Your task to perform on an android device: Go to Google maps Image 0: 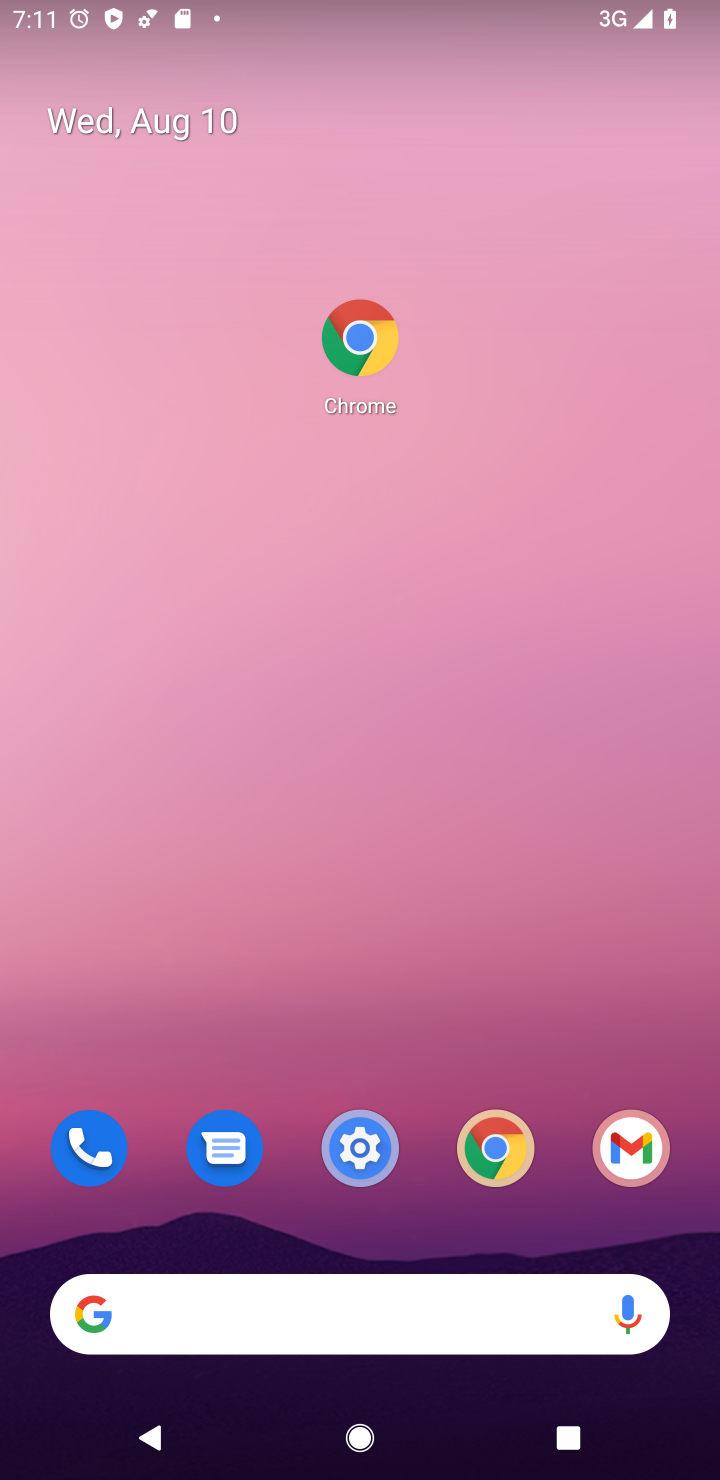
Step 0: drag from (287, 1205) to (353, 232)
Your task to perform on an android device: Go to Google maps Image 1: 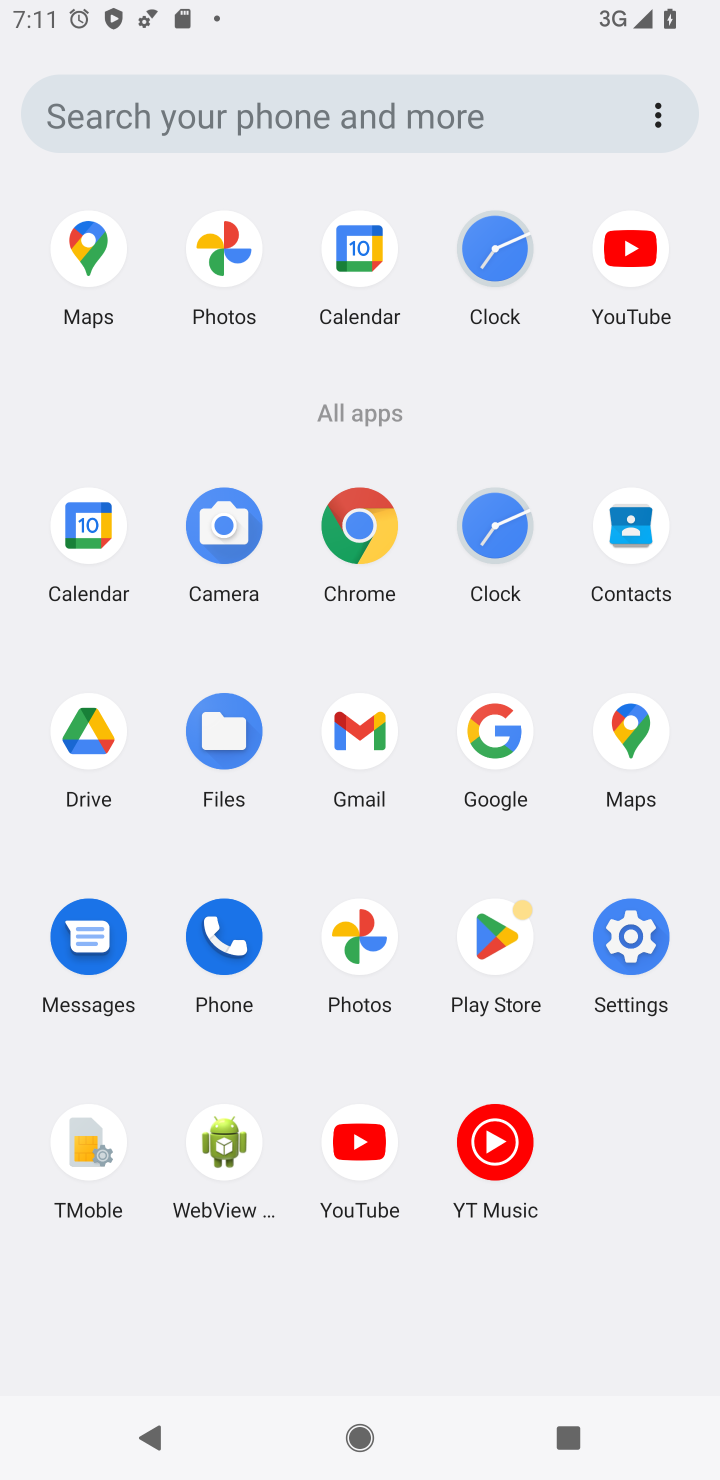
Step 1: click (93, 250)
Your task to perform on an android device: Go to Google maps Image 2: 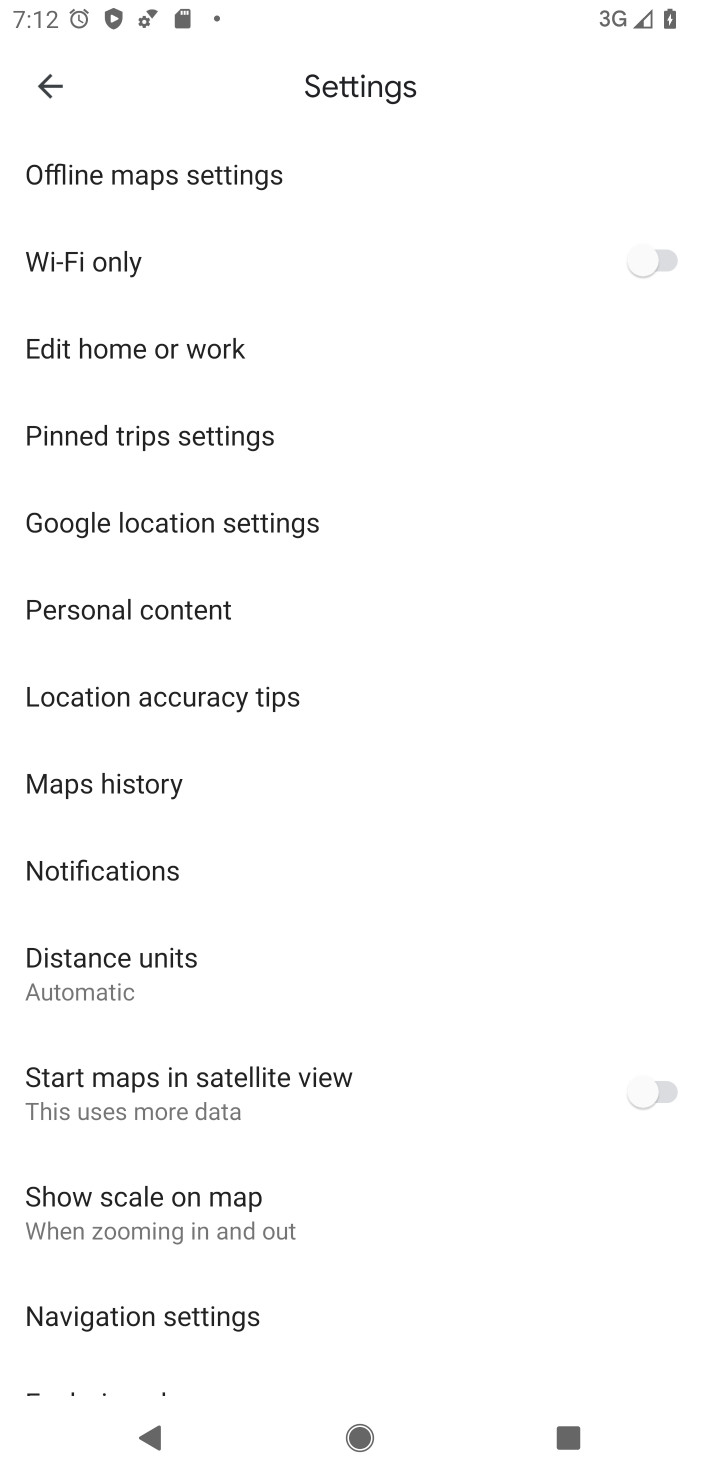
Step 2: press home button
Your task to perform on an android device: Go to Google maps Image 3: 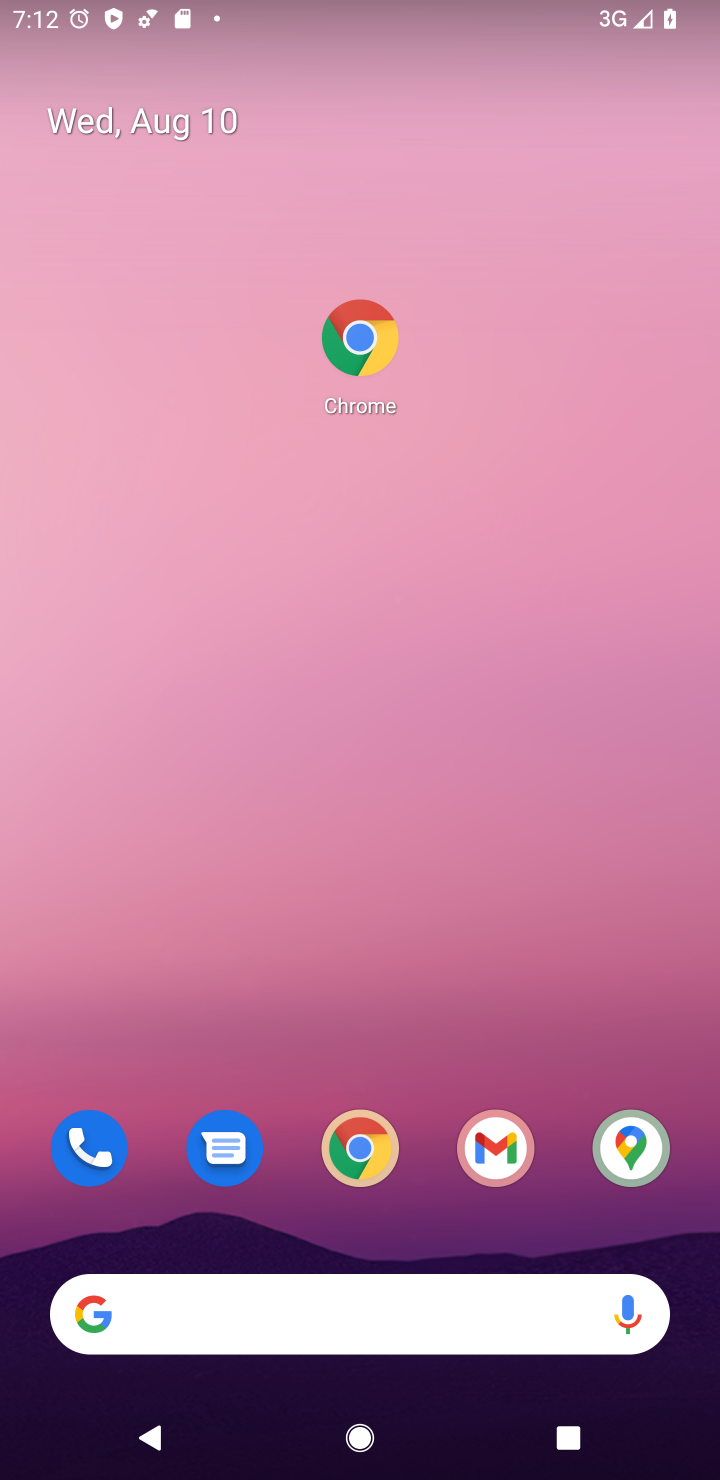
Step 3: drag from (234, 1252) to (243, 400)
Your task to perform on an android device: Go to Google maps Image 4: 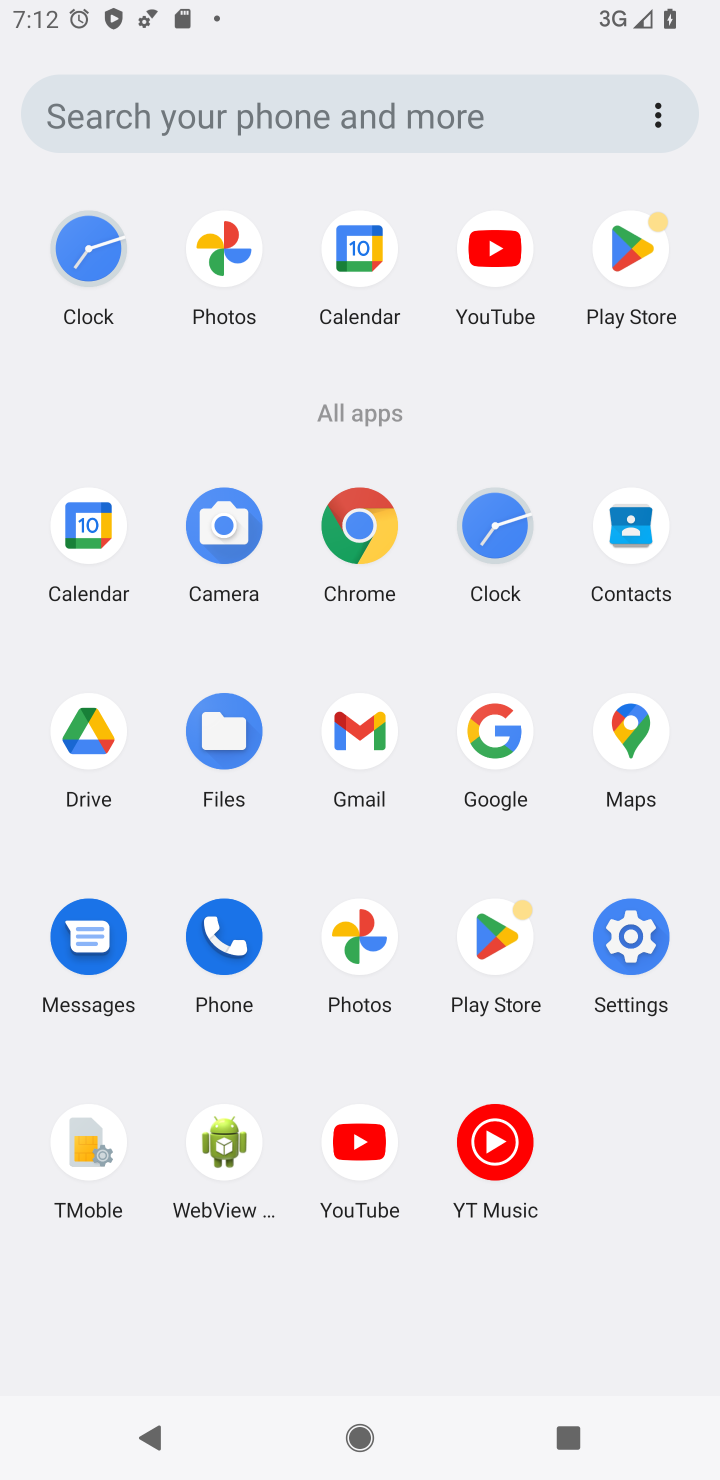
Step 4: click (621, 740)
Your task to perform on an android device: Go to Google maps Image 5: 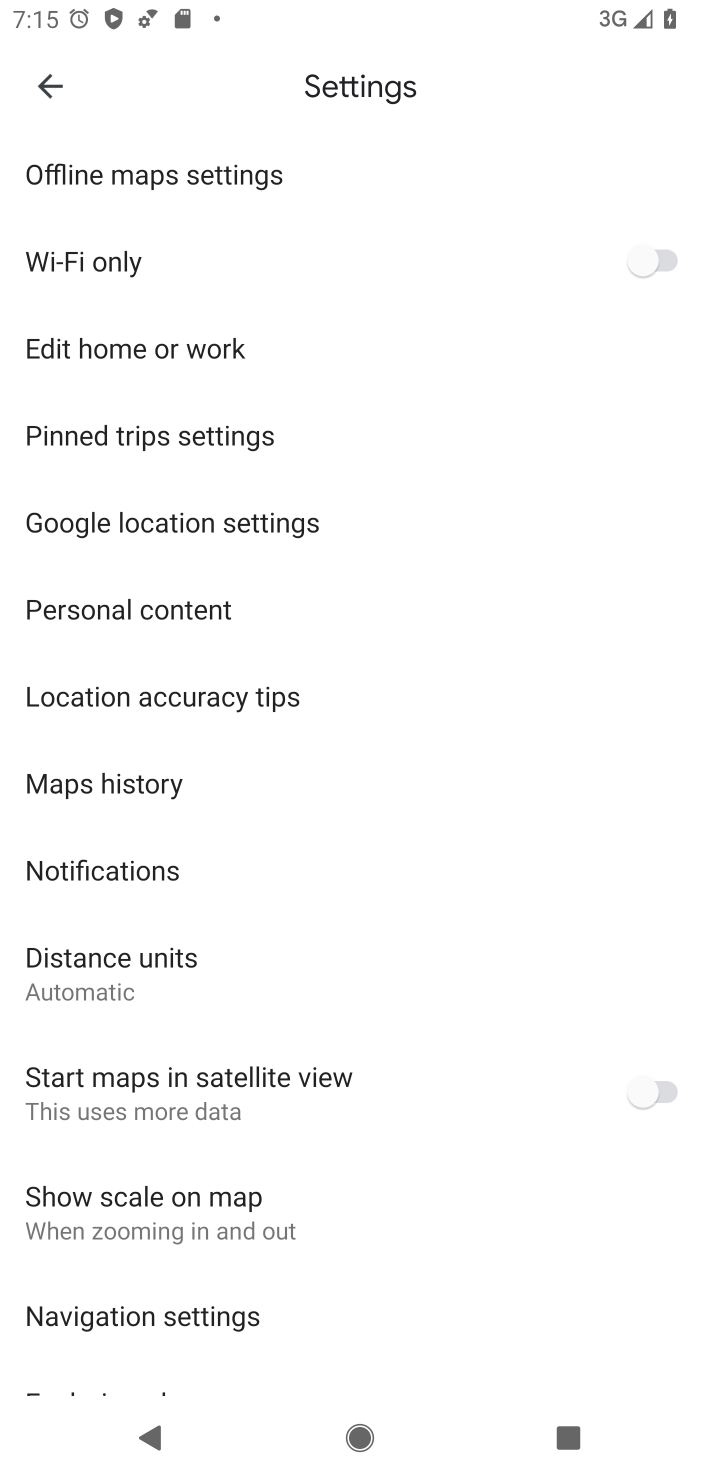
Step 5: click (32, 95)
Your task to perform on an android device: Go to Google maps Image 6: 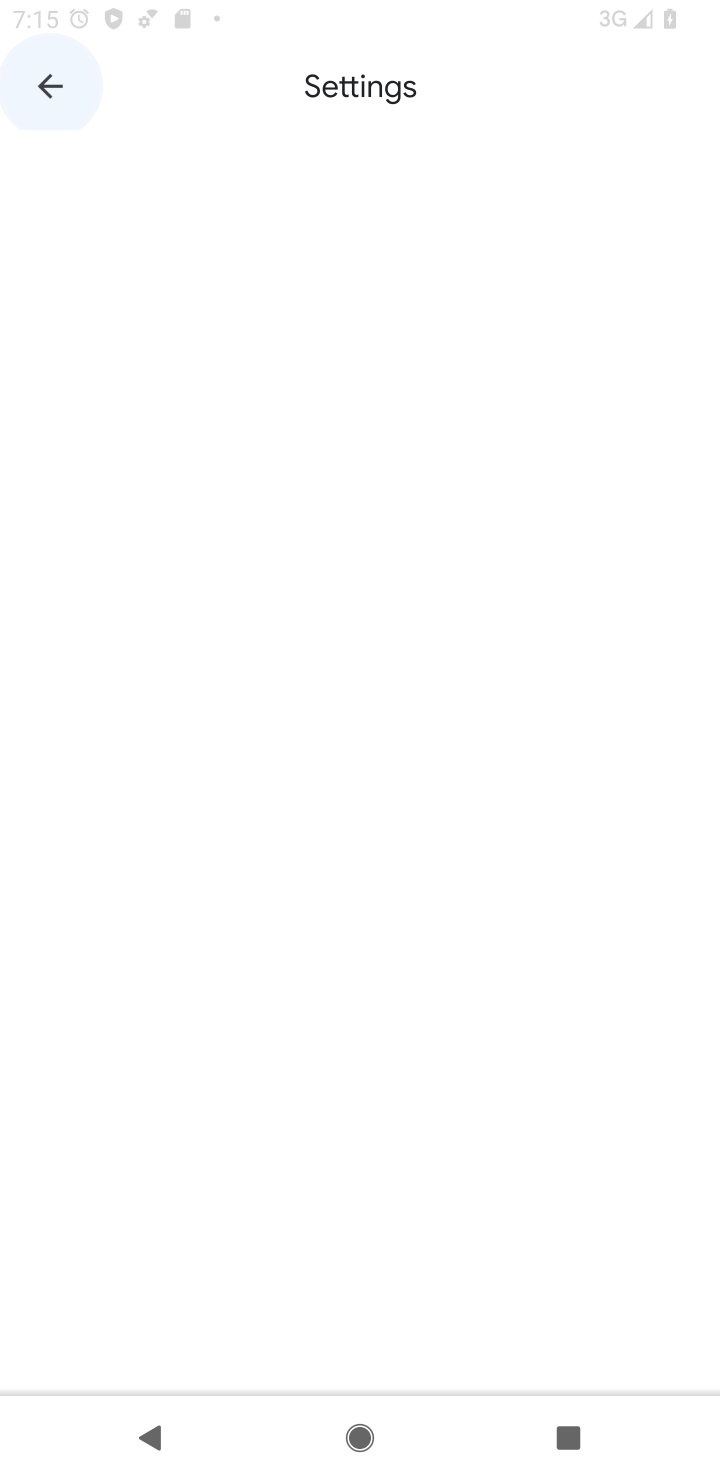
Step 6: click (47, 85)
Your task to perform on an android device: Go to Google maps Image 7: 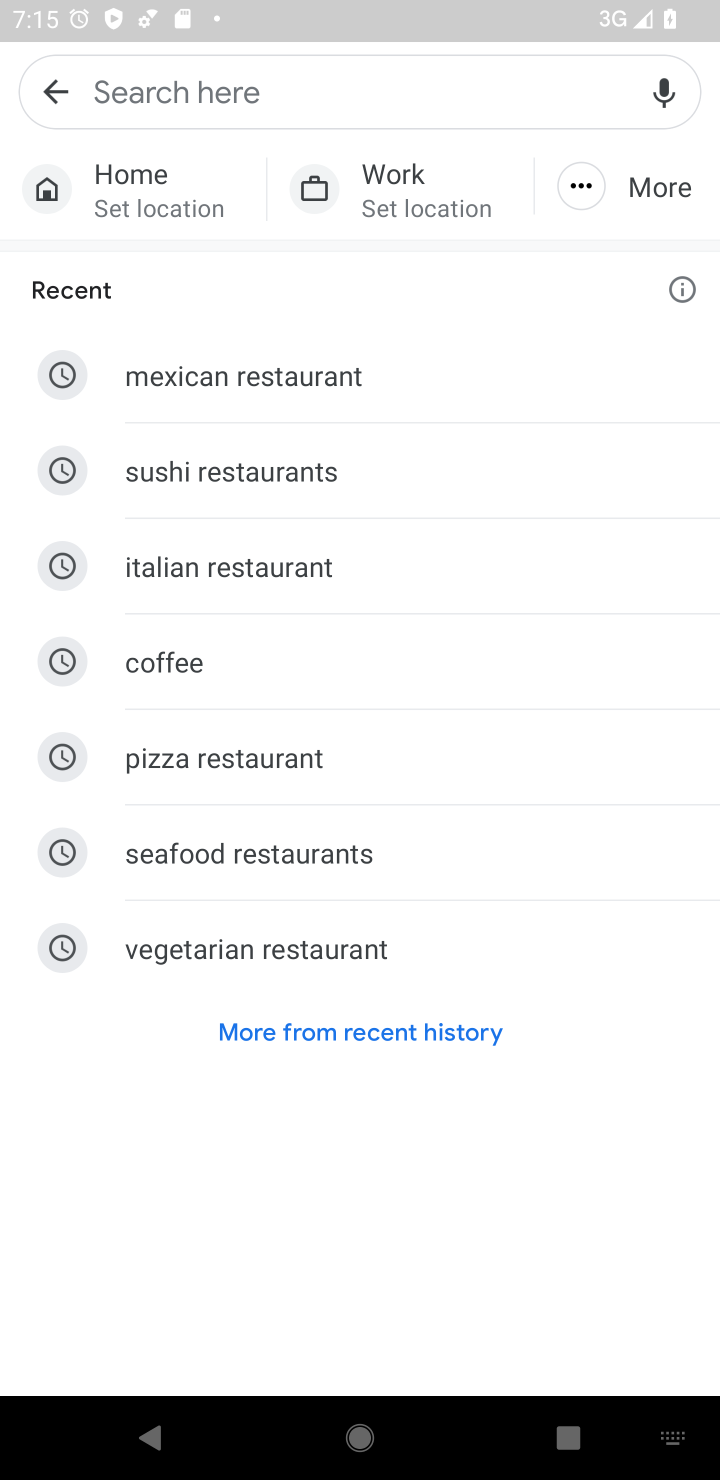
Step 7: task complete